Your task to perform on an android device: Go to notification settings Image 0: 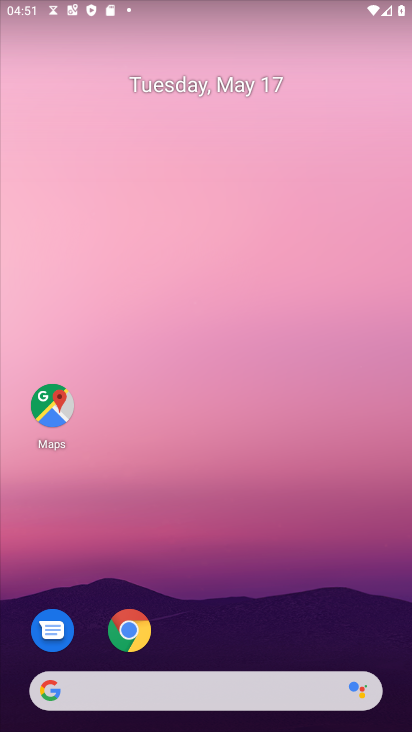
Step 0: drag from (240, 411) to (273, 132)
Your task to perform on an android device: Go to notification settings Image 1: 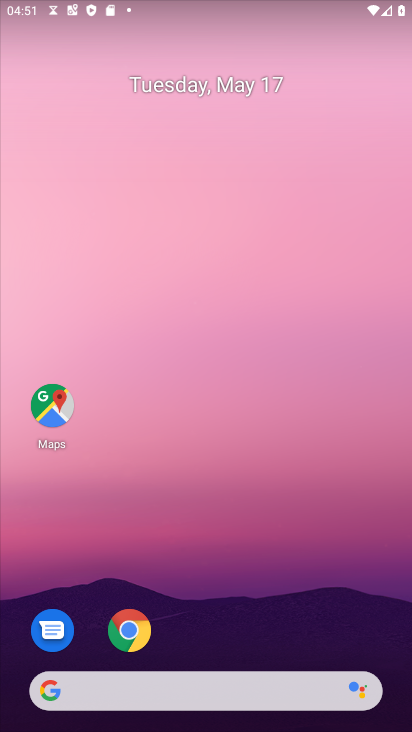
Step 1: drag from (313, 508) to (329, 131)
Your task to perform on an android device: Go to notification settings Image 2: 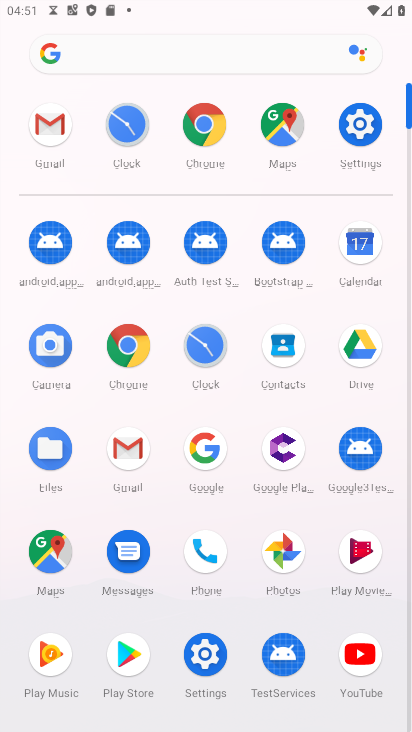
Step 2: click (354, 121)
Your task to perform on an android device: Go to notification settings Image 3: 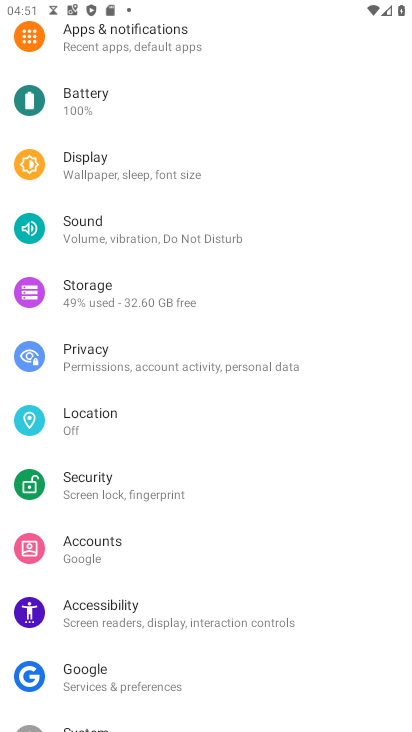
Step 3: click (158, 37)
Your task to perform on an android device: Go to notification settings Image 4: 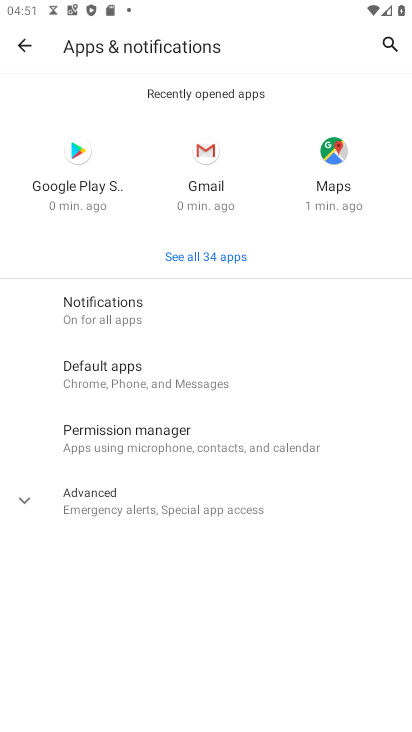
Step 4: click (117, 308)
Your task to perform on an android device: Go to notification settings Image 5: 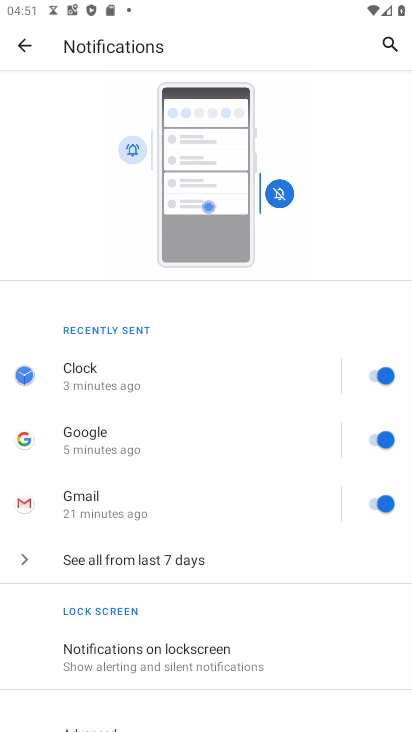
Step 5: task complete